Your task to perform on an android device: Open calendar and show me the second week of next month Image 0: 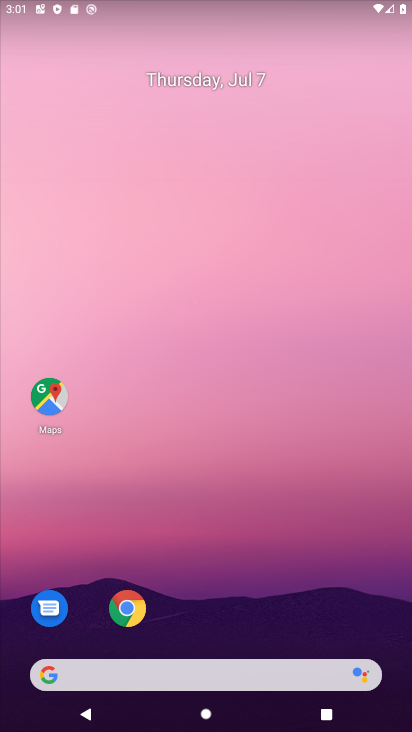
Step 0: drag from (226, 633) to (212, 117)
Your task to perform on an android device: Open calendar and show me the second week of next month Image 1: 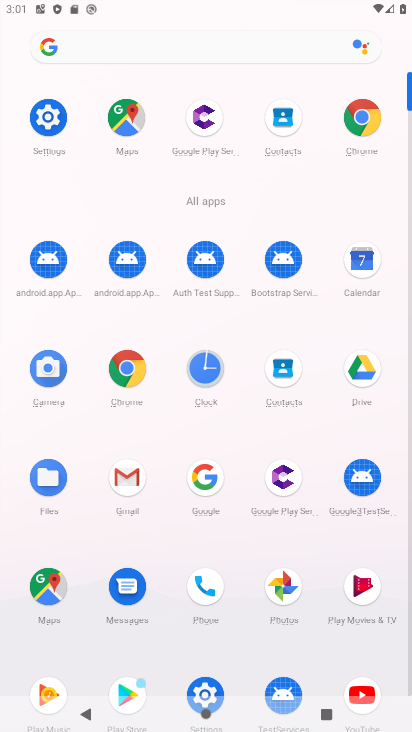
Step 1: click (353, 255)
Your task to perform on an android device: Open calendar and show me the second week of next month Image 2: 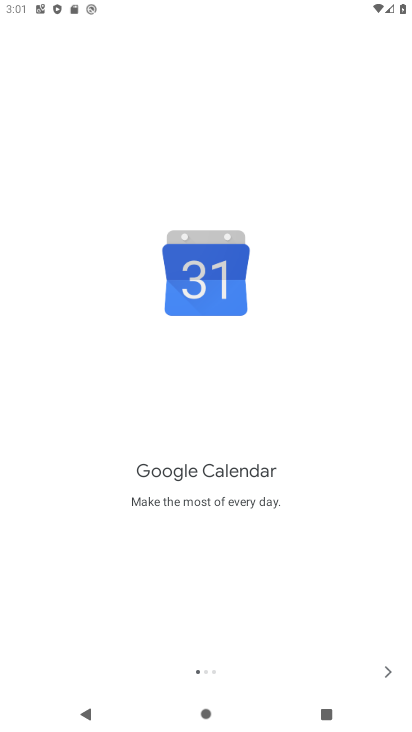
Step 2: click (387, 670)
Your task to perform on an android device: Open calendar and show me the second week of next month Image 3: 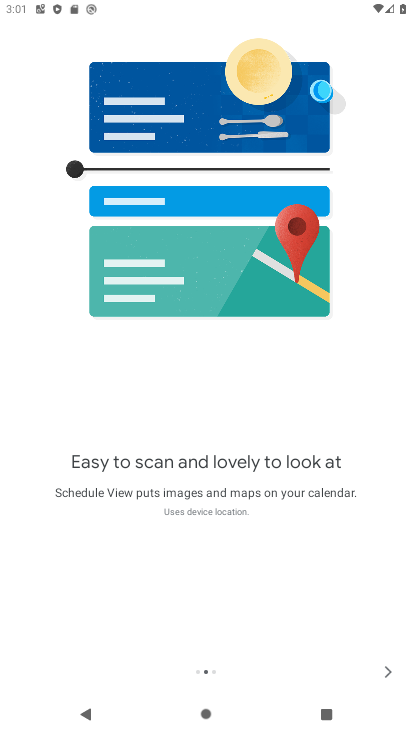
Step 3: click (379, 667)
Your task to perform on an android device: Open calendar and show me the second week of next month Image 4: 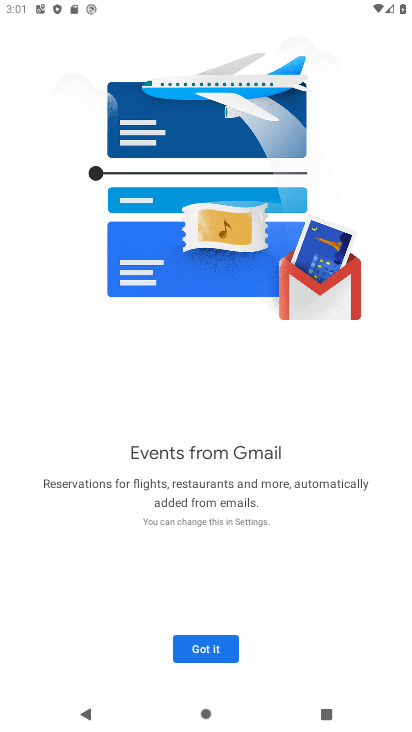
Step 4: click (211, 641)
Your task to perform on an android device: Open calendar and show me the second week of next month Image 5: 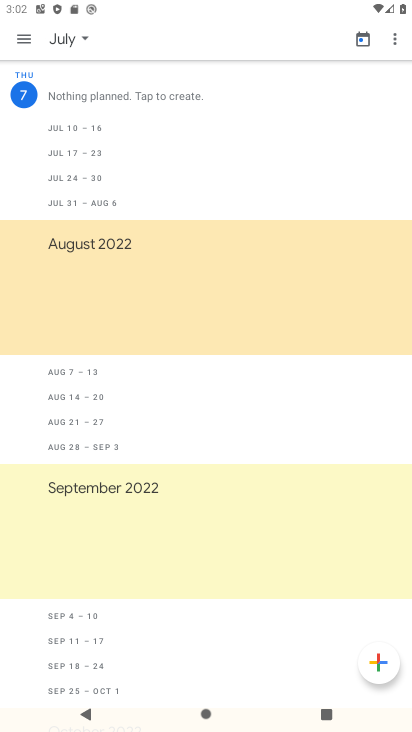
Step 5: click (80, 34)
Your task to perform on an android device: Open calendar and show me the second week of next month Image 6: 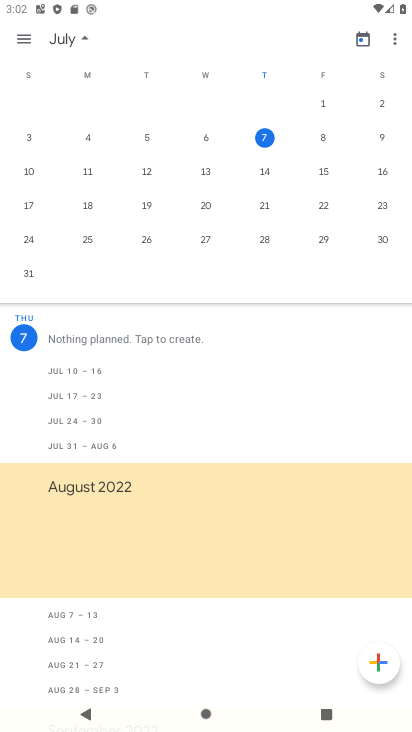
Step 6: drag from (352, 198) to (17, 219)
Your task to perform on an android device: Open calendar and show me the second week of next month Image 7: 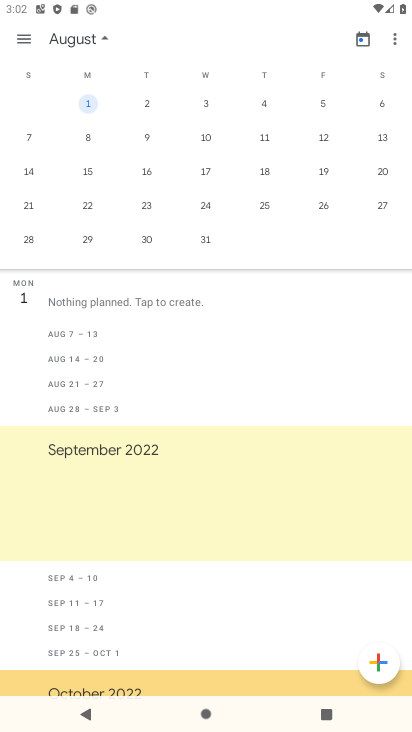
Step 7: click (30, 135)
Your task to perform on an android device: Open calendar and show me the second week of next month Image 8: 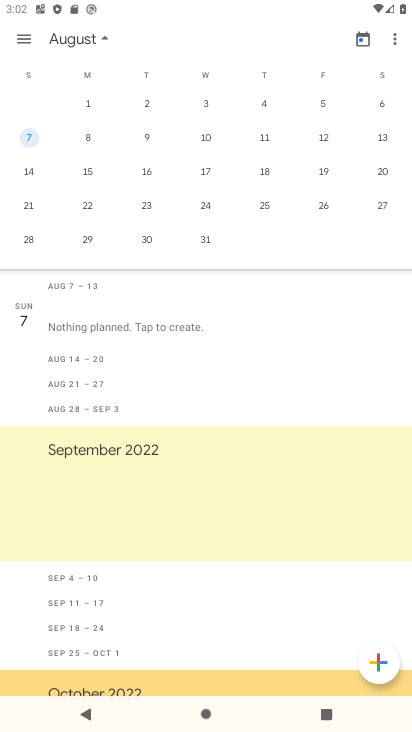
Step 8: click (30, 135)
Your task to perform on an android device: Open calendar and show me the second week of next month Image 9: 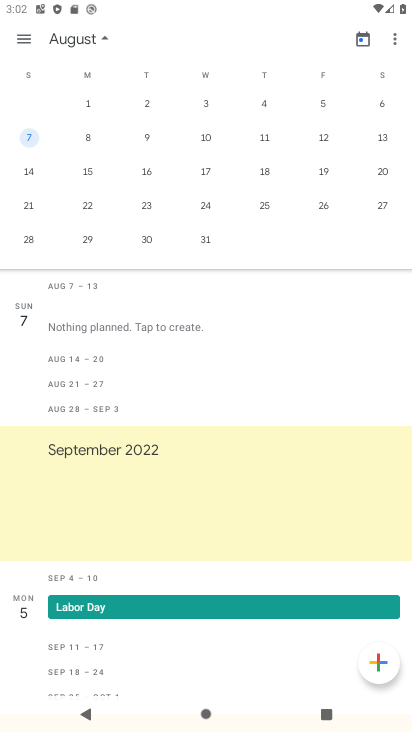
Step 9: click (98, 30)
Your task to perform on an android device: Open calendar and show me the second week of next month Image 10: 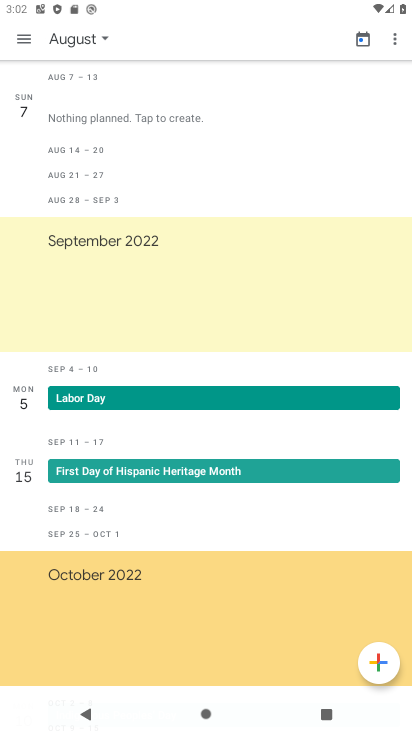
Step 10: click (39, 102)
Your task to perform on an android device: Open calendar and show me the second week of next month Image 11: 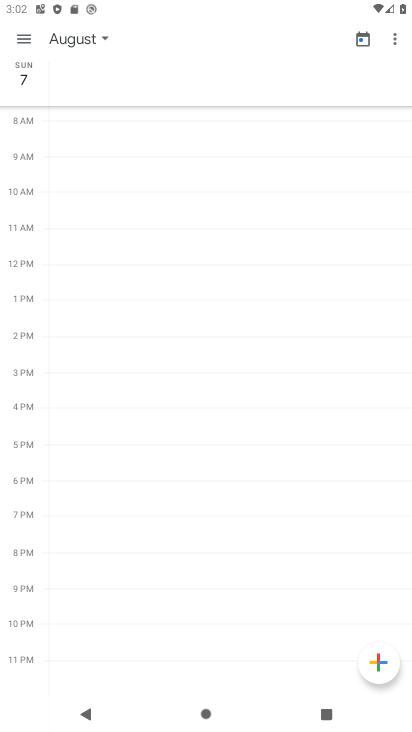
Step 11: click (23, 88)
Your task to perform on an android device: Open calendar and show me the second week of next month Image 12: 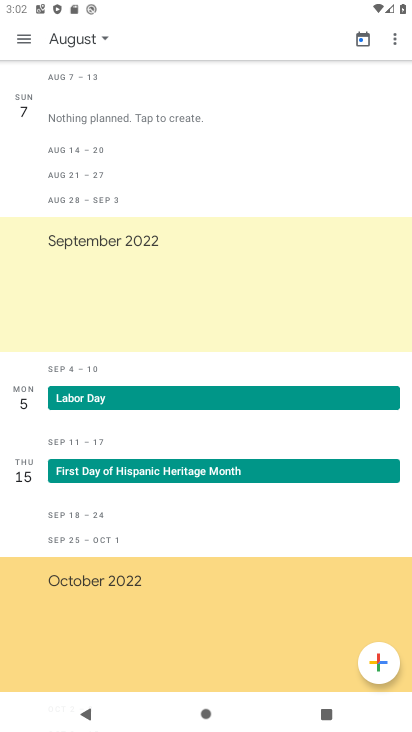
Step 12: task complete